Your task to perform on an android device: Add "usb-c" to the cart on target Image 0: 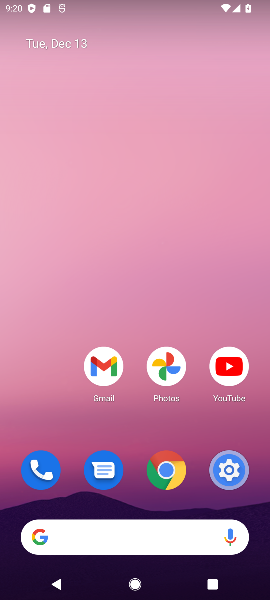
Step 0: press home button
Your task to perform on an android device: Add "usb-c" to the cart on target Image 1: 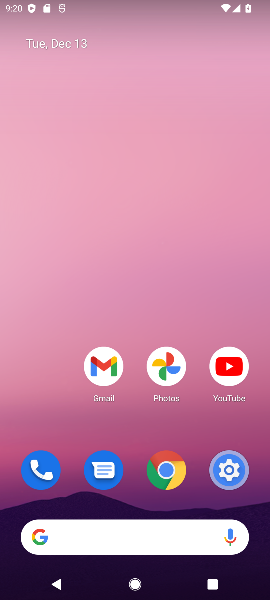
Step 1: click (56, 536)
Your task to perform on an android device: Add "usb-c" to the cart on target Image 2: 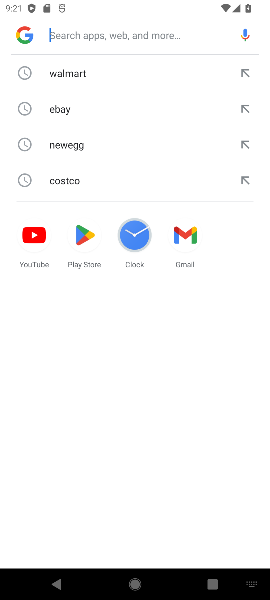
Step 2: type "target"
Your task to perform on an android device: Add "usb-c" to the cart on target Image 3: 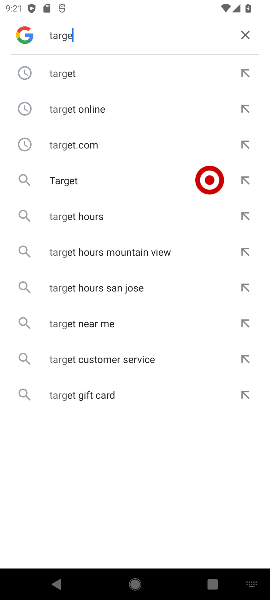
Step 3: press enter
Your task to perform on an android device: Add "usb-c" to the cart on target Image 4: 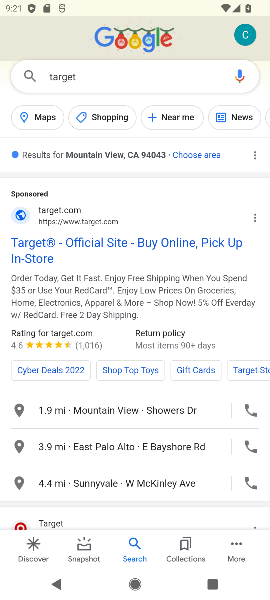
Step 4: click (63, 243)
Your task to perform on an android device: Add "usb-c" to the cart on target Image 5: 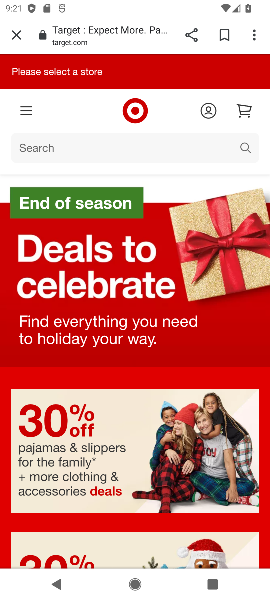
Step 5: click (40, 145)
Your task to perform on an android device: Add "usb-c" to the cart on target Image 6: 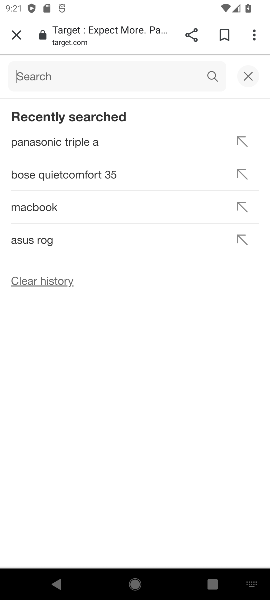
Step 6: type "usb-c"
Your task to perform on an android device: Add "usb-c" to the cart on target Image 7: 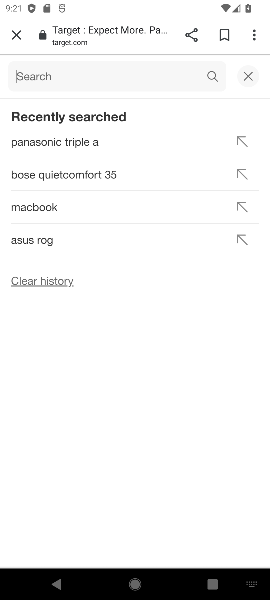
Step 7: press enter
Your task to perform on an android device: Add "usb-c" to the cart on target Image 8: 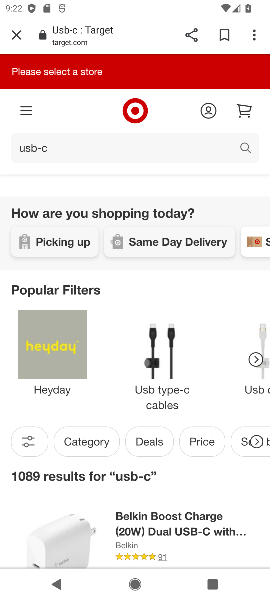
Step 8: drag from (156, 507) to (167, 245)
Your task to perform on an android device: Add "usb-c" to the cart on target Image 9: 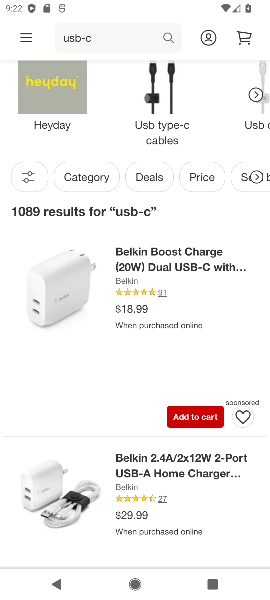
Step 9: drag from (157, 505) to (156, 271)
Your task to perform on an android device: Add "usb-c" to the cart on target Image 10: 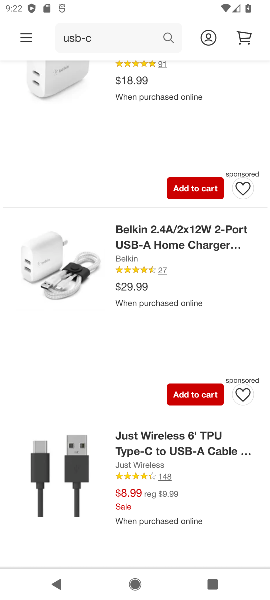
Step 10: drag from (143, 489) to (147, 258)
Your task to perform on an android device: Add "usb-c" to the cart on target Image 11: 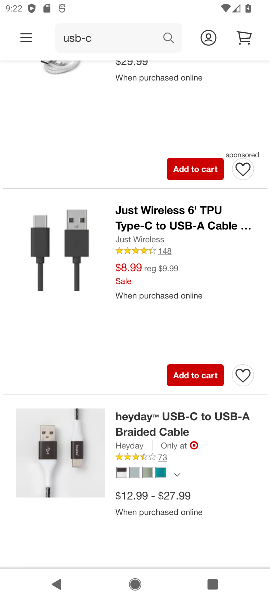
Step 11: drag from (142, 491) to (142, 295)
Your task to perform on an android device: Add "usb-c" to the cart on target Image 12: 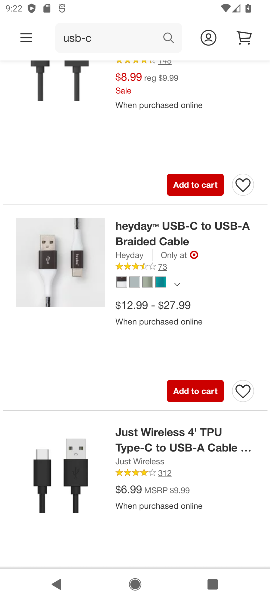
Step 12: drag from (143, 489) to (185, 228)
Your task to perform on an android device: Add "usb-c" to the cart on target Image 13: 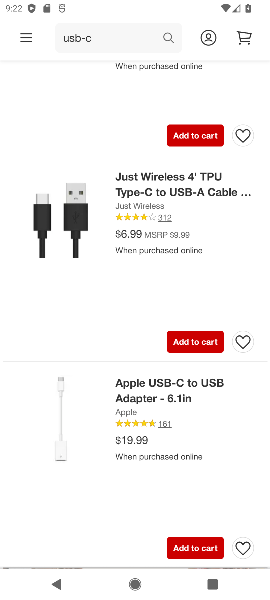
Step 13: click (196, 549)
Your task to perform on an android device: Add "usb-c" to the cart on target Image 14: 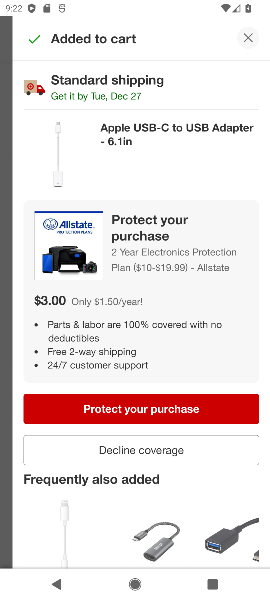
Step 14: task complete